Your task to perform on an android device: Go to Google Image 0: 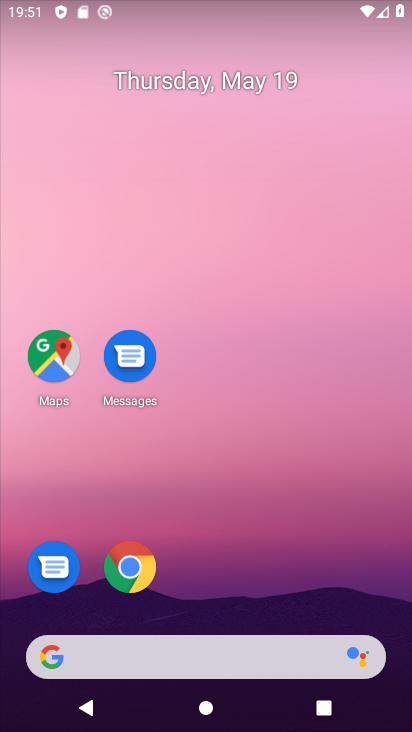
Step 0: drag from (221, 620) to (199, 74)
Your task to perform on an android device: Go to Google Image 1: 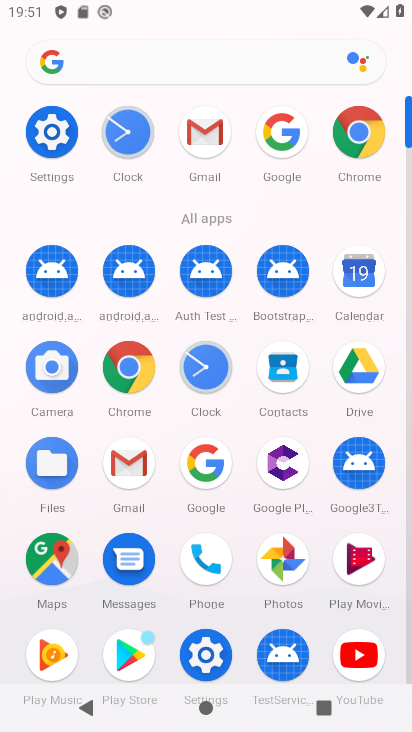
Step 1: click (204, 458)
Your task to perform on an android device: Go to Google Image 2: 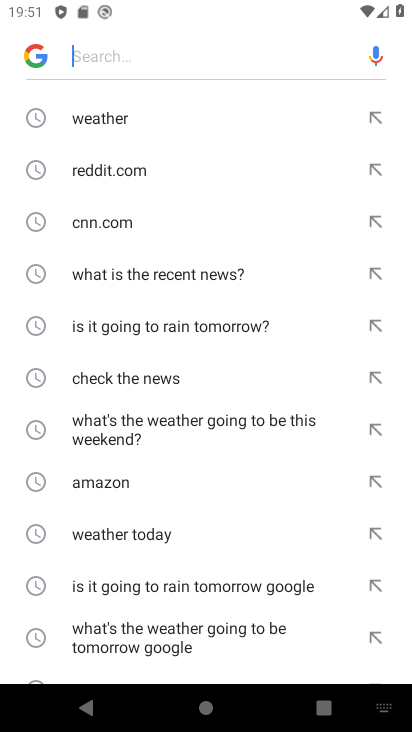
Step 2: task complete